Your task to perform on an android device: Go to internet settings Image 0: 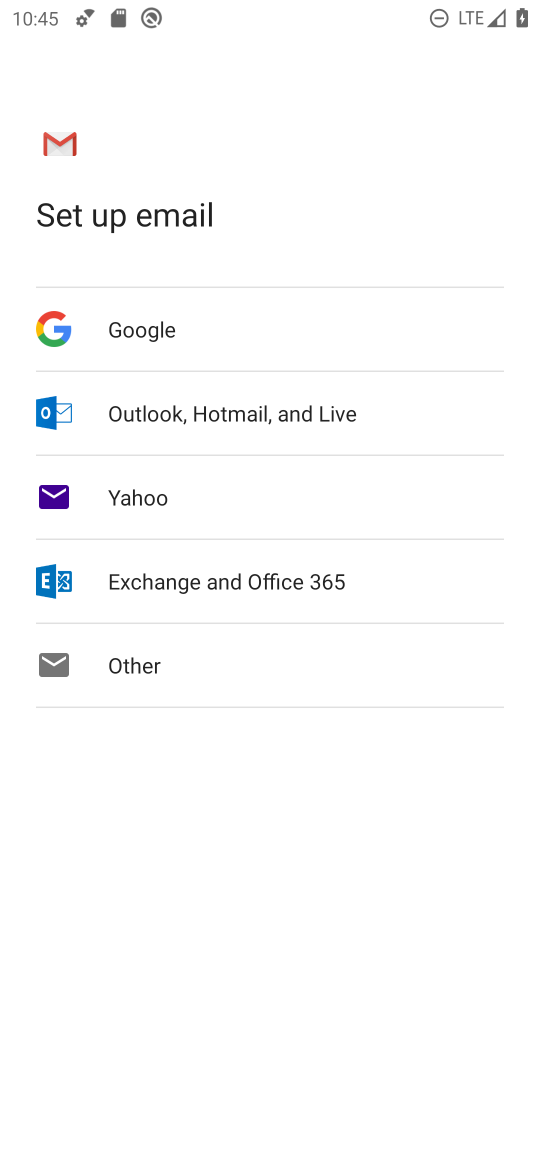
Step 0: press home button
Your task to perform on an android device: Go to internet settings Image 1: 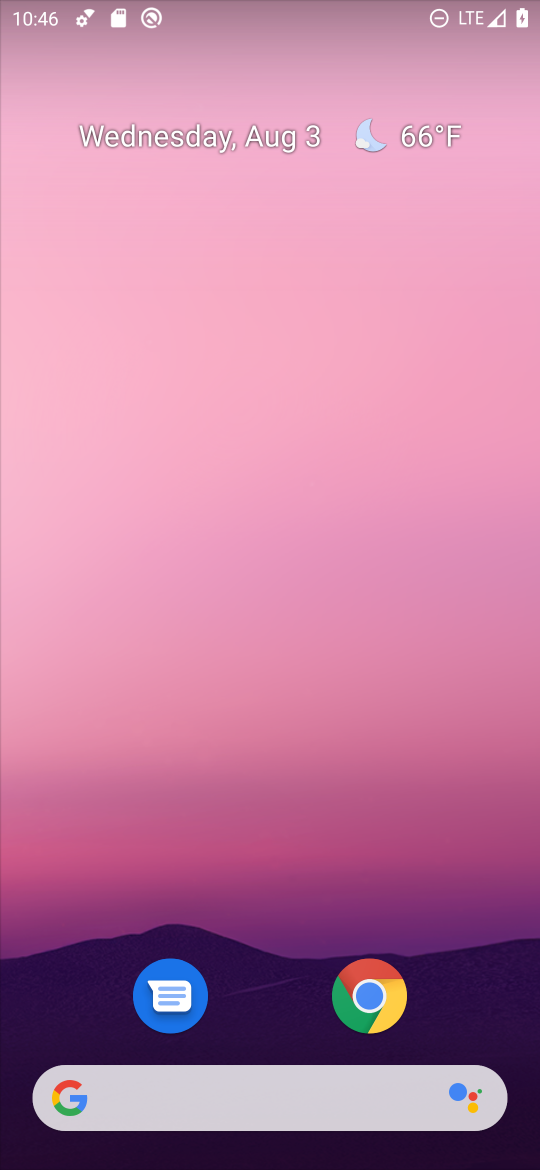
Step 1: drag from (220, 614) to (258, 0)
Your task to perform on an android device: Go to internet settings Image 2: 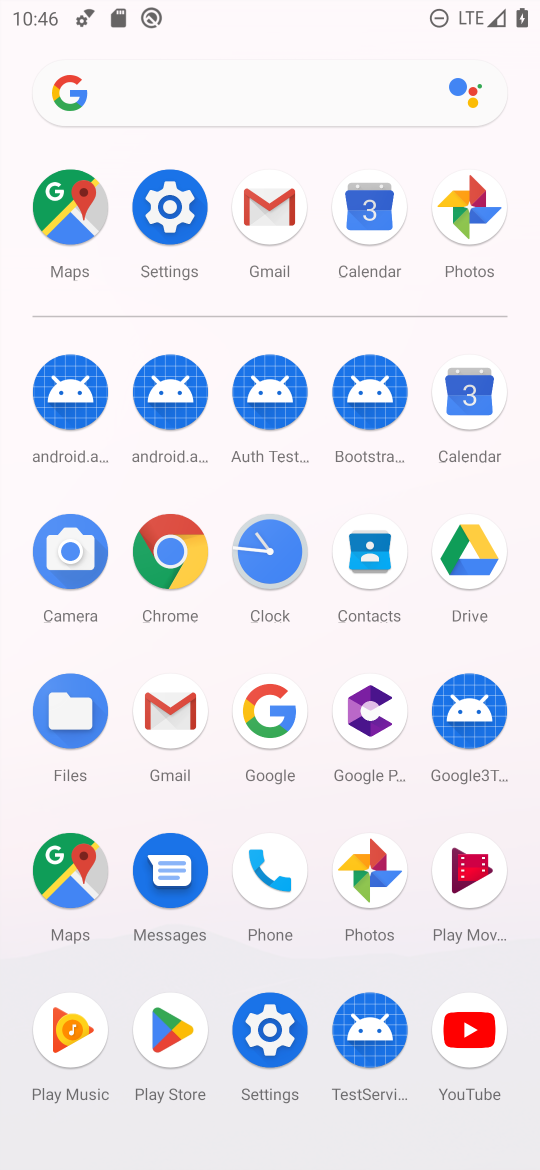
Step 2: click (178, 216)
Your task to perform on an android device: Go to internet settings Image 3: 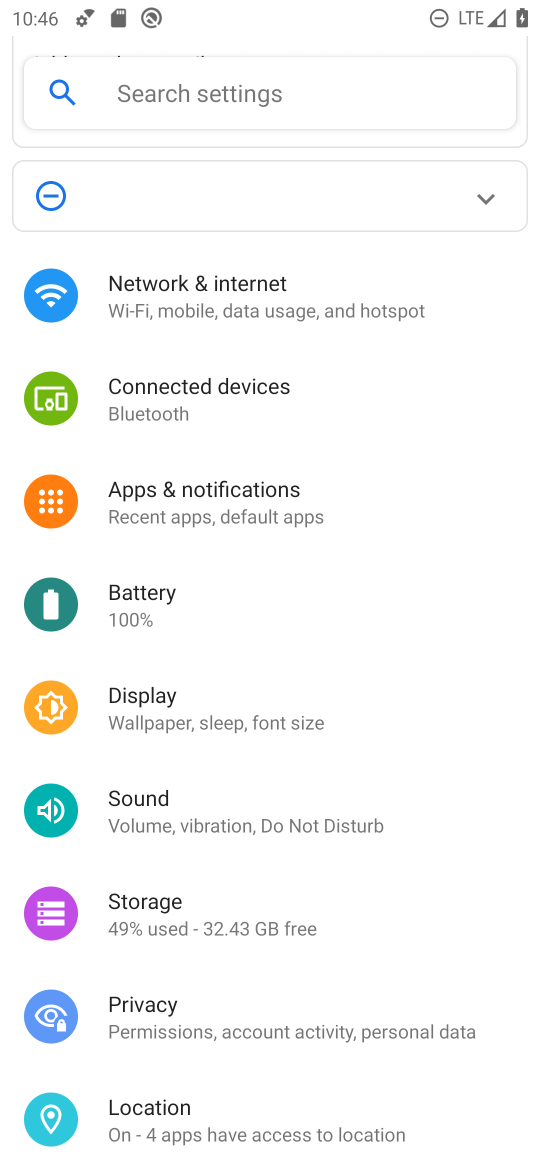
Step 3: click (193, 294)
Your task to perform on an android device: Go to internet settings Image 4: 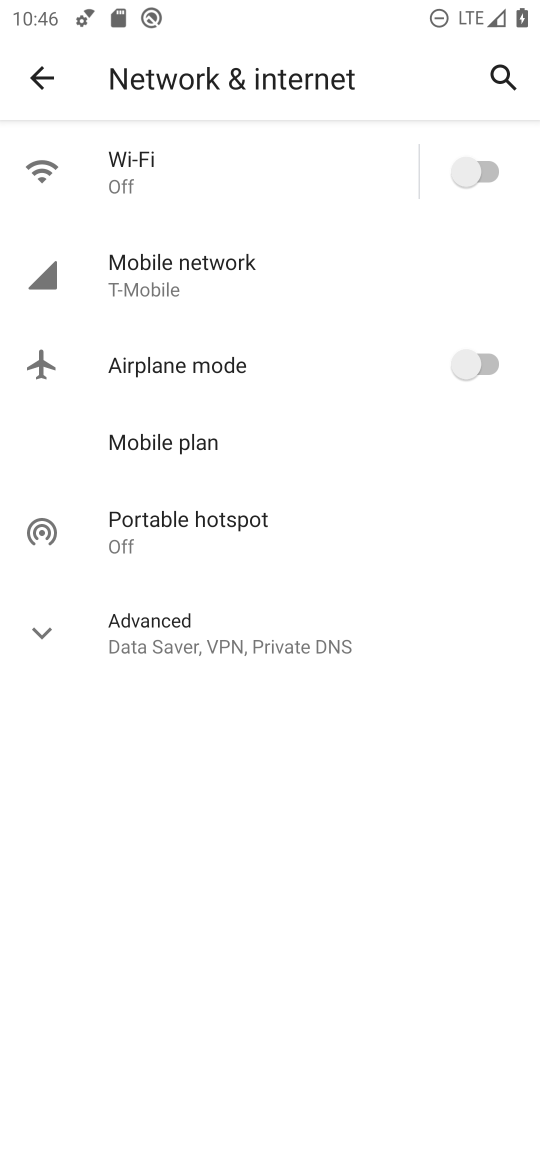
Step 4: task complete